Your task to perform on an android device: turn on the 12-hour format for clock Image 0: 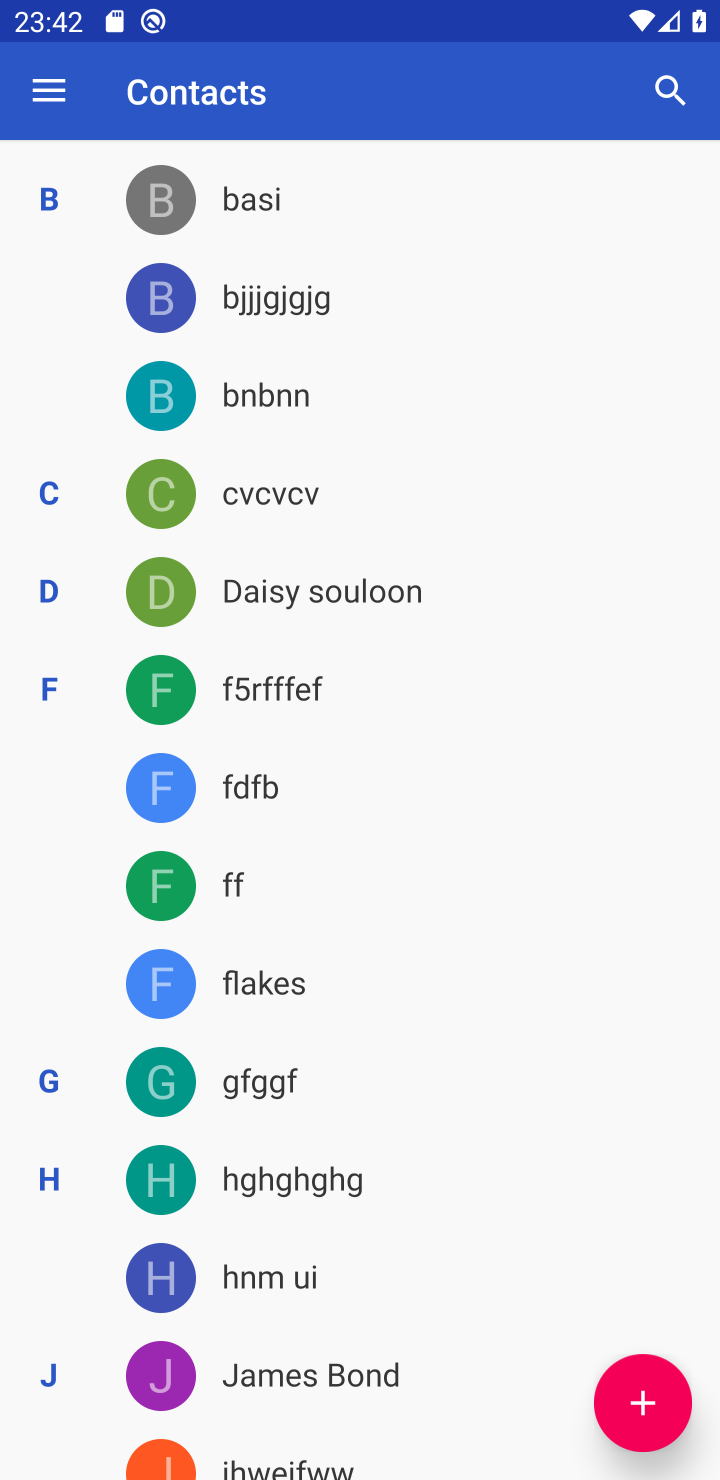
Step 0: press home button
Your task to perform on an android device: turn on the 12-hour format for clock Image 1: 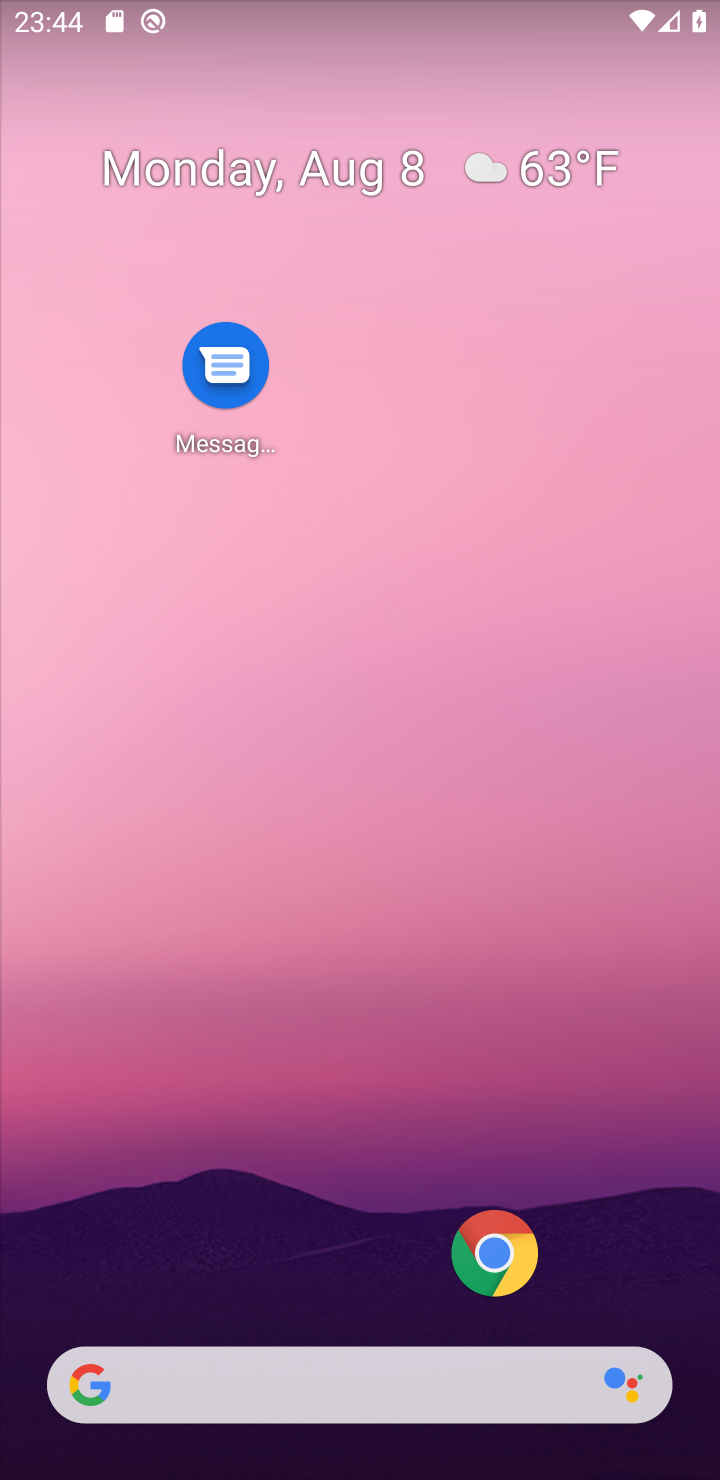
Step 1: drag from (459, 1223) to (487, 165)
Your task to perform on an android device: turn on the 12-hour format for clock Image 2: 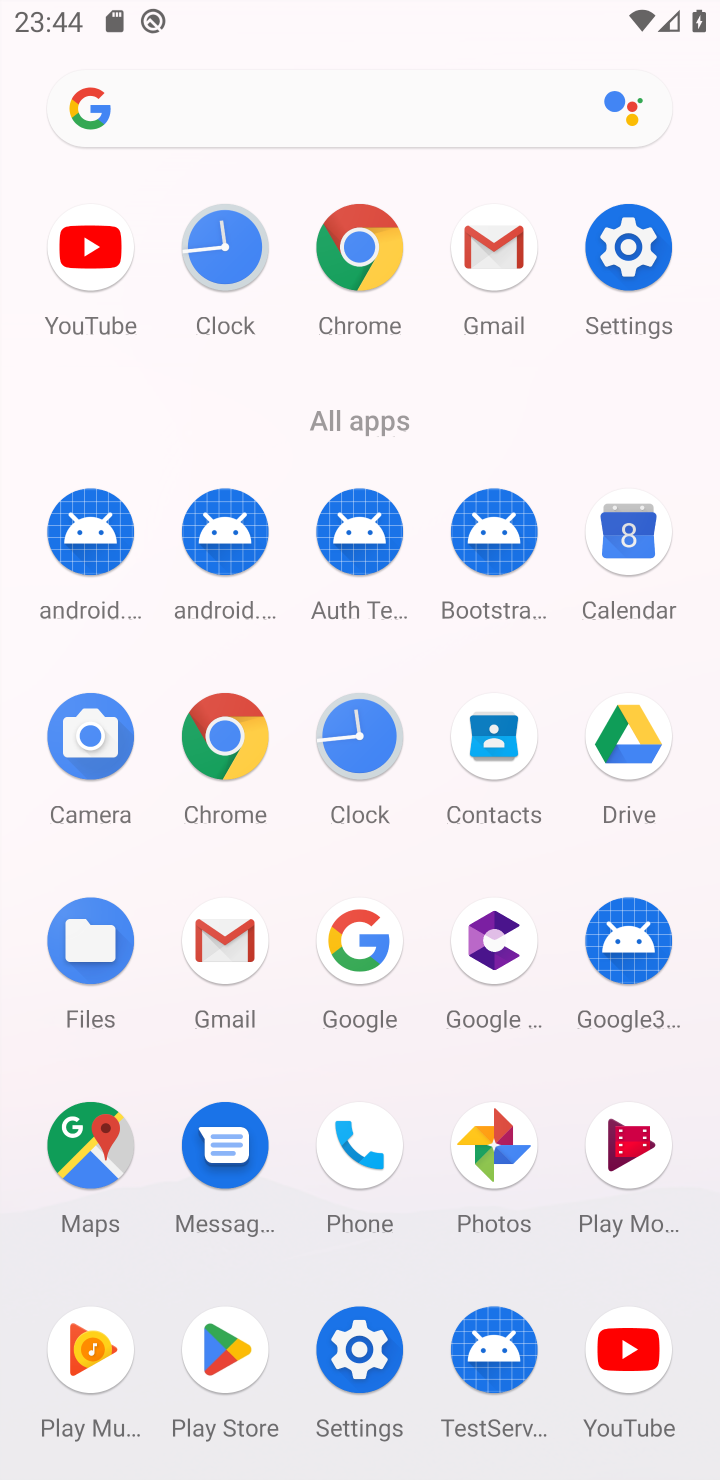
Step 2: click (616, 236)
Your task to perform on an android device: turn on the 12-hour format for clock Image 3: 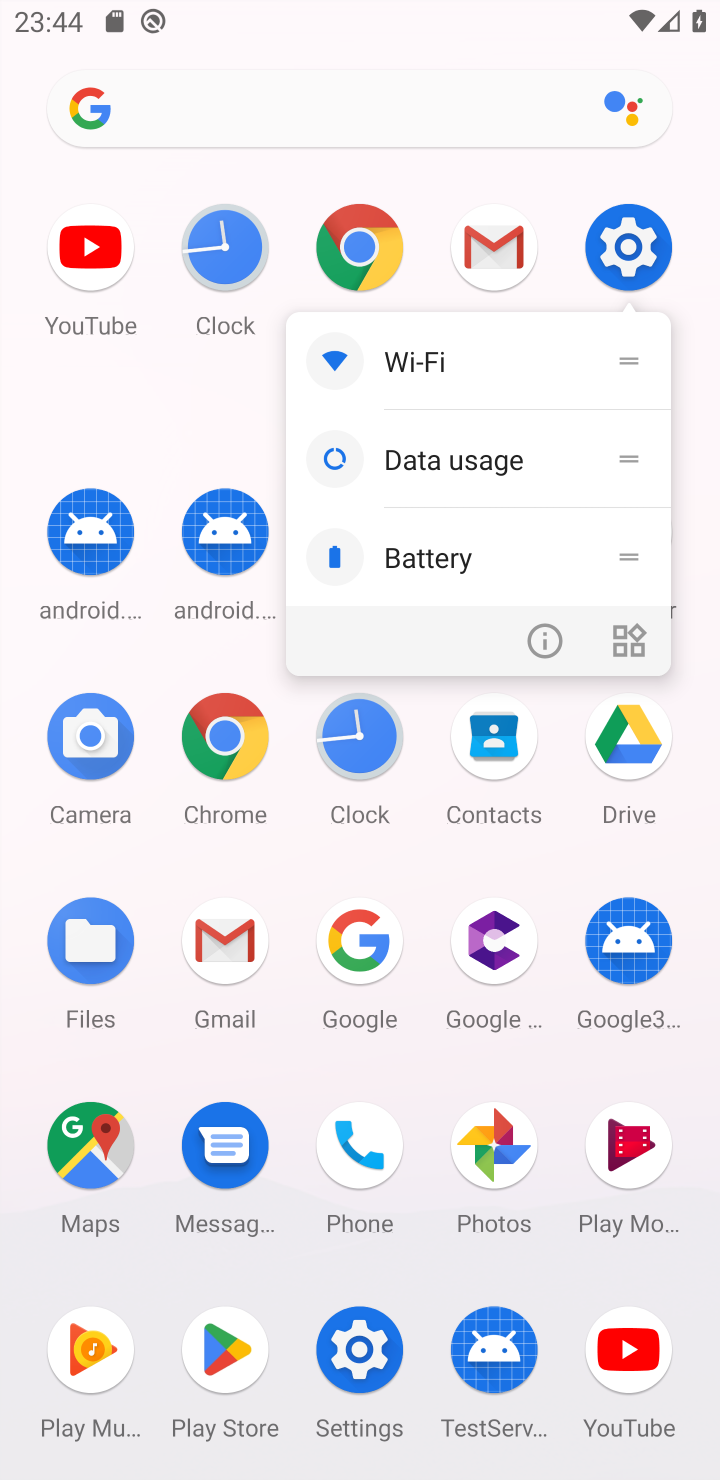
Step 3: click (616, 236)
Your task to perform on an android device: turn on the 12-hour format for clock Image 4: 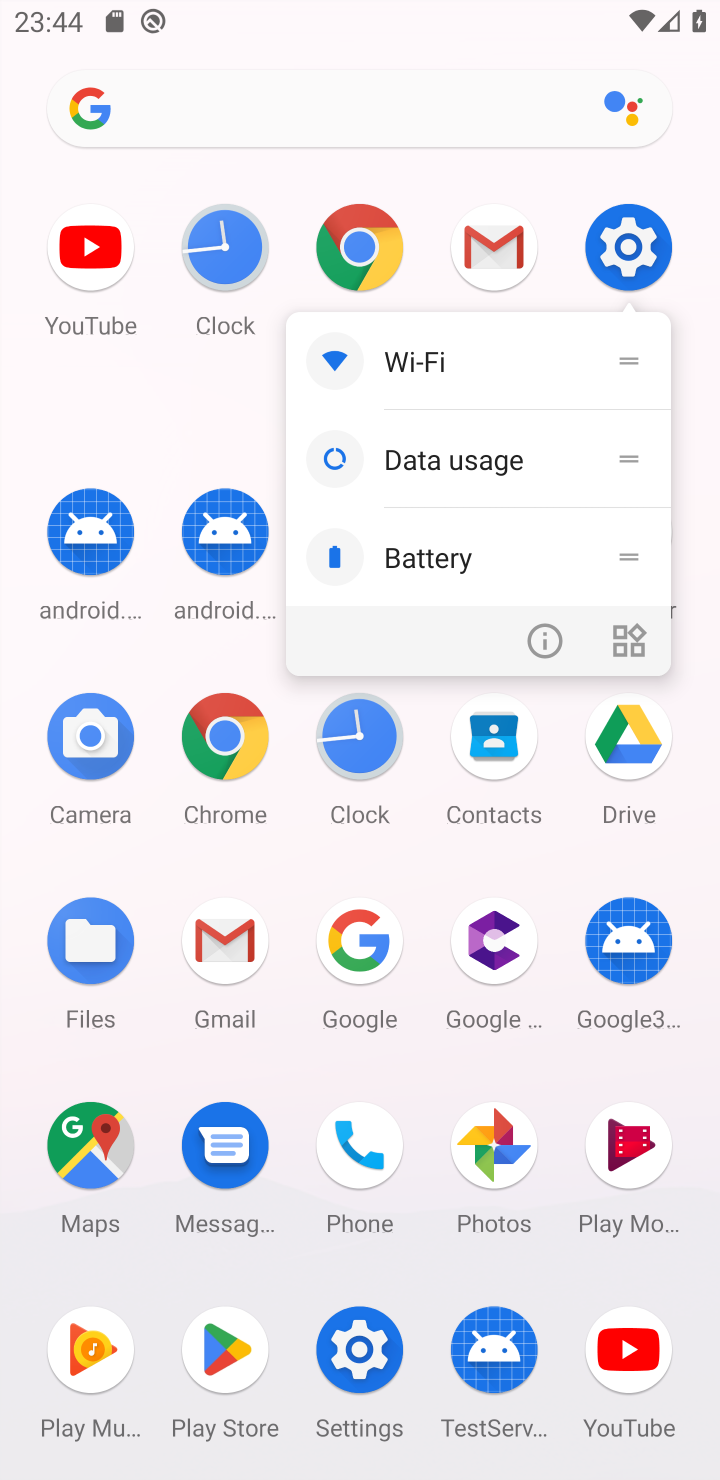
Step 4: click (616, 236)
Your task to perform on an android device: turn on the 12-hour format for clock Image 5: 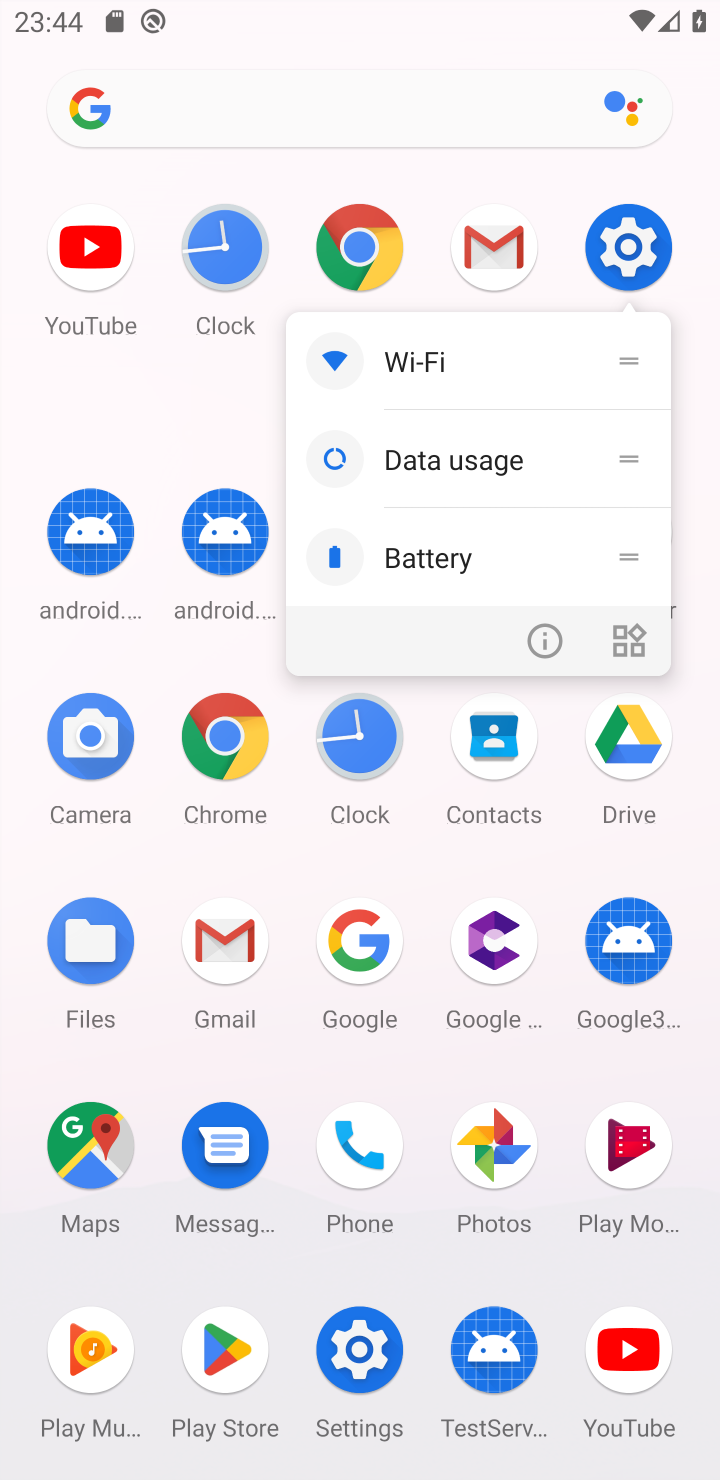
Step 5: click (599, 235)
Your task to perform on an android device: turn on the 12-hour format for clock Image 6: 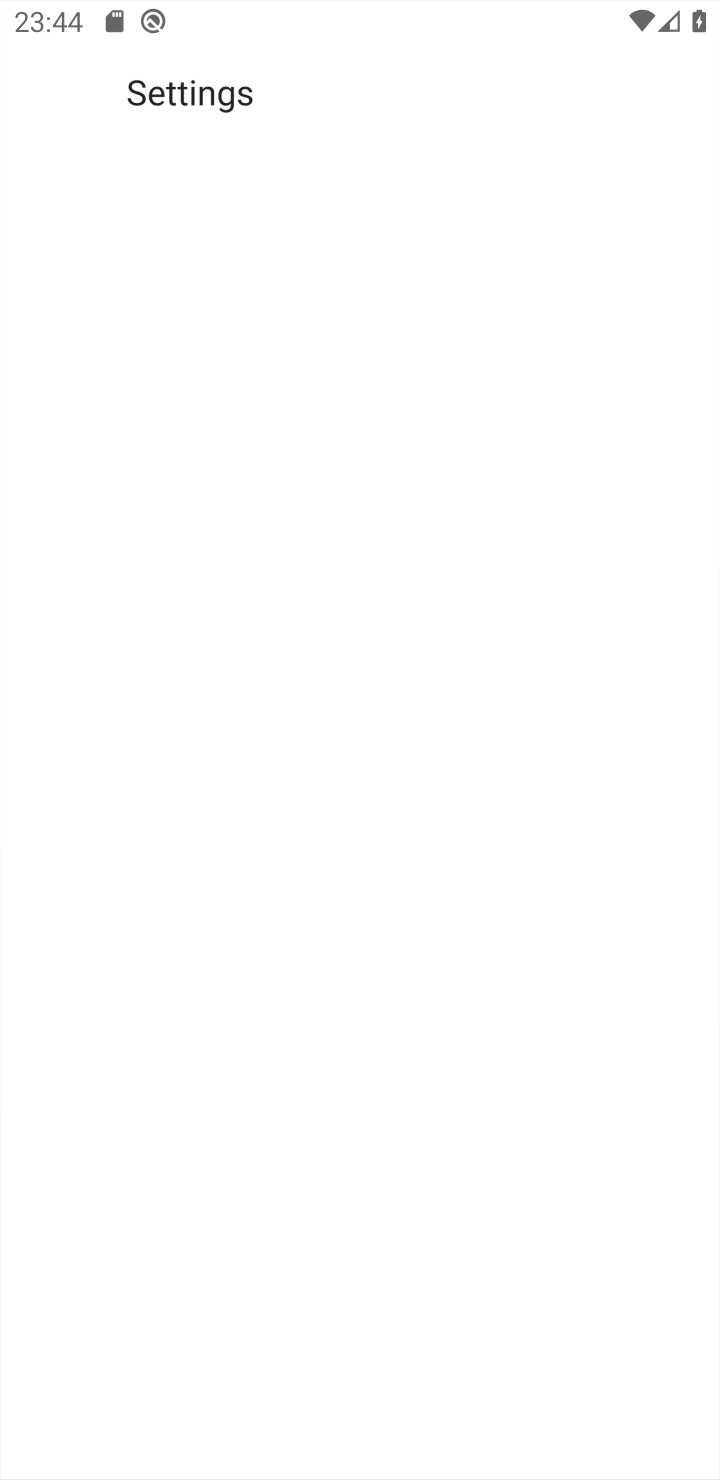
Step 6: click (382, 734)
Your task to perform on an android device: turn on the 12-hour format for clock Image 7: 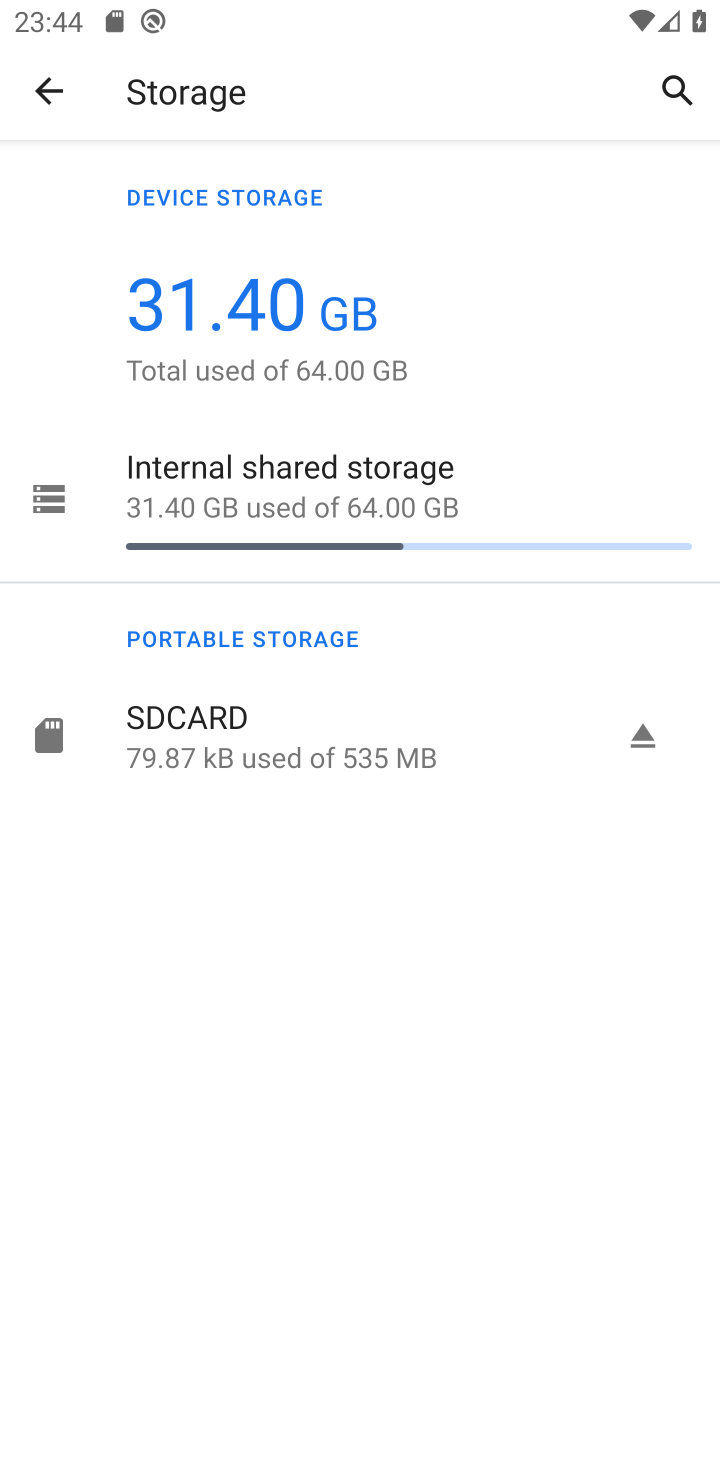
Step 7: press home button
Your task to perform on an android device: turn on the 12-hour format for clock Image 8: 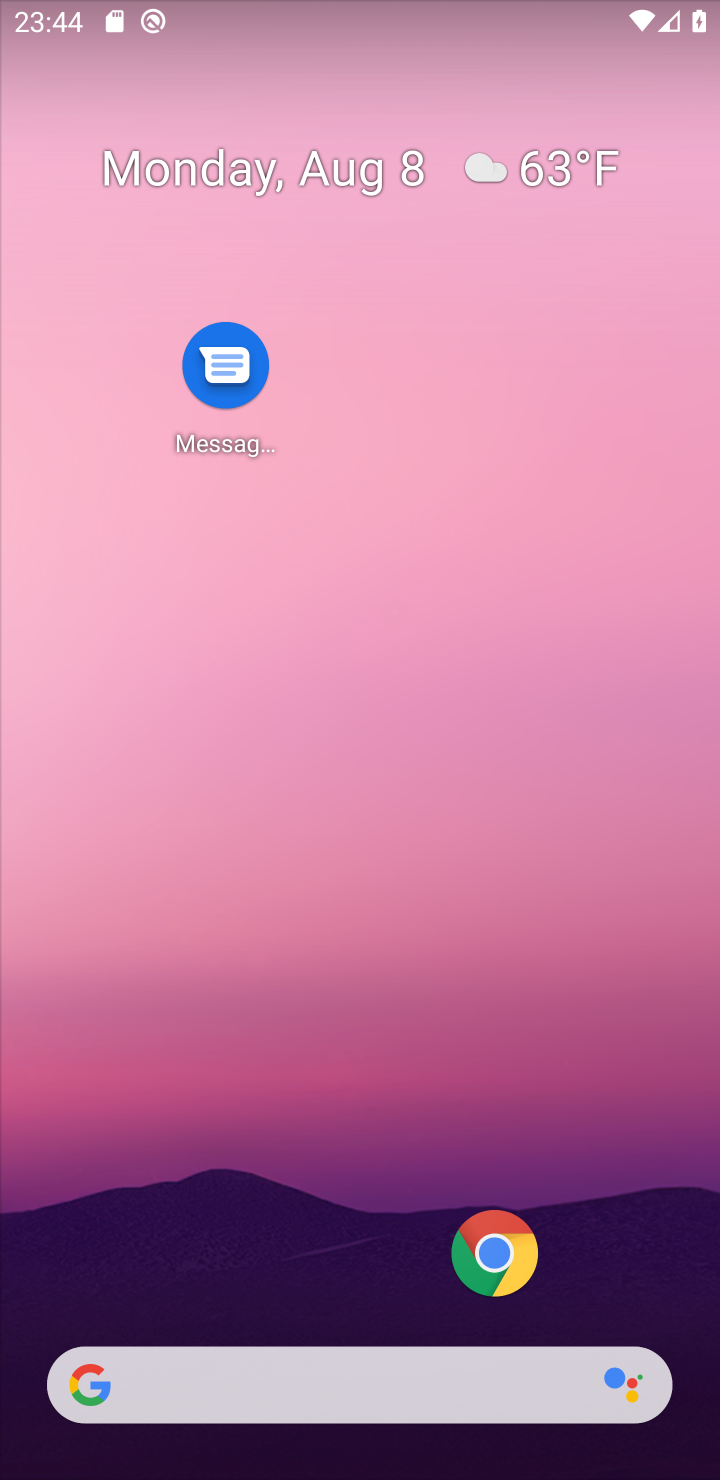
Step 8: drag from (300, 910) to (456, 62)
Your task to perform on an android device: turn on the 12-hour format for clock Image 9: 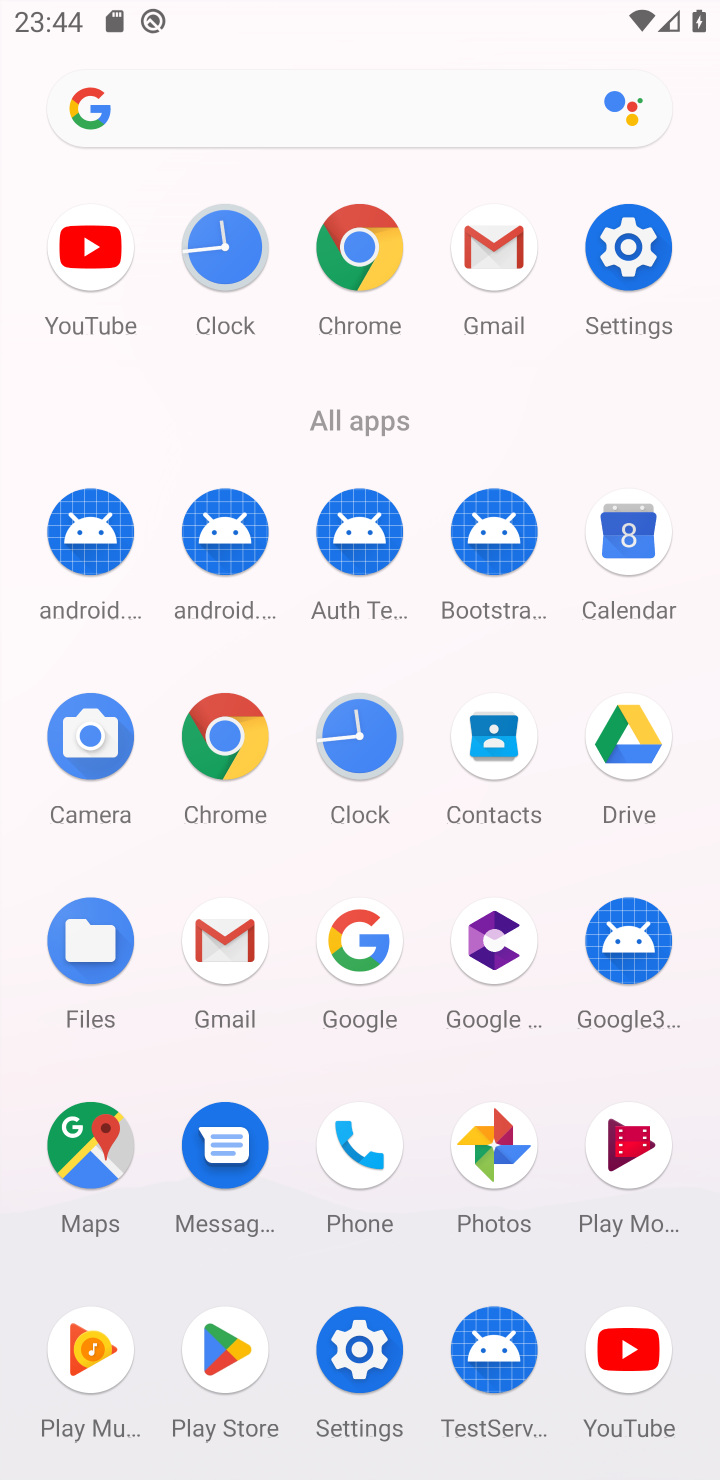
Step 9: click (370, 736)
Your task to perform on an android device: turn on the 12-hour format for clock Image 10: 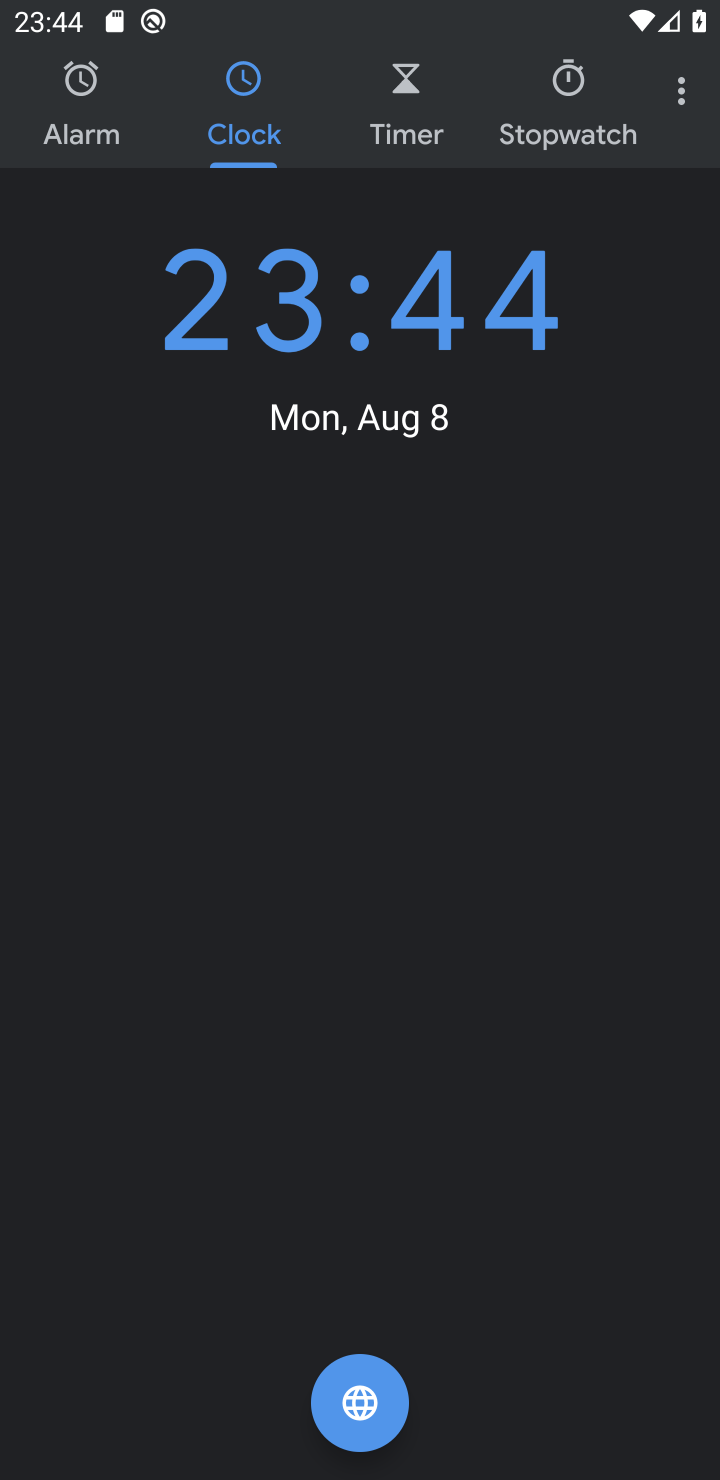
Step 10: click (679, 102)
Your task to perform on an android device: turn on the 12-hour format for clock Image 11: 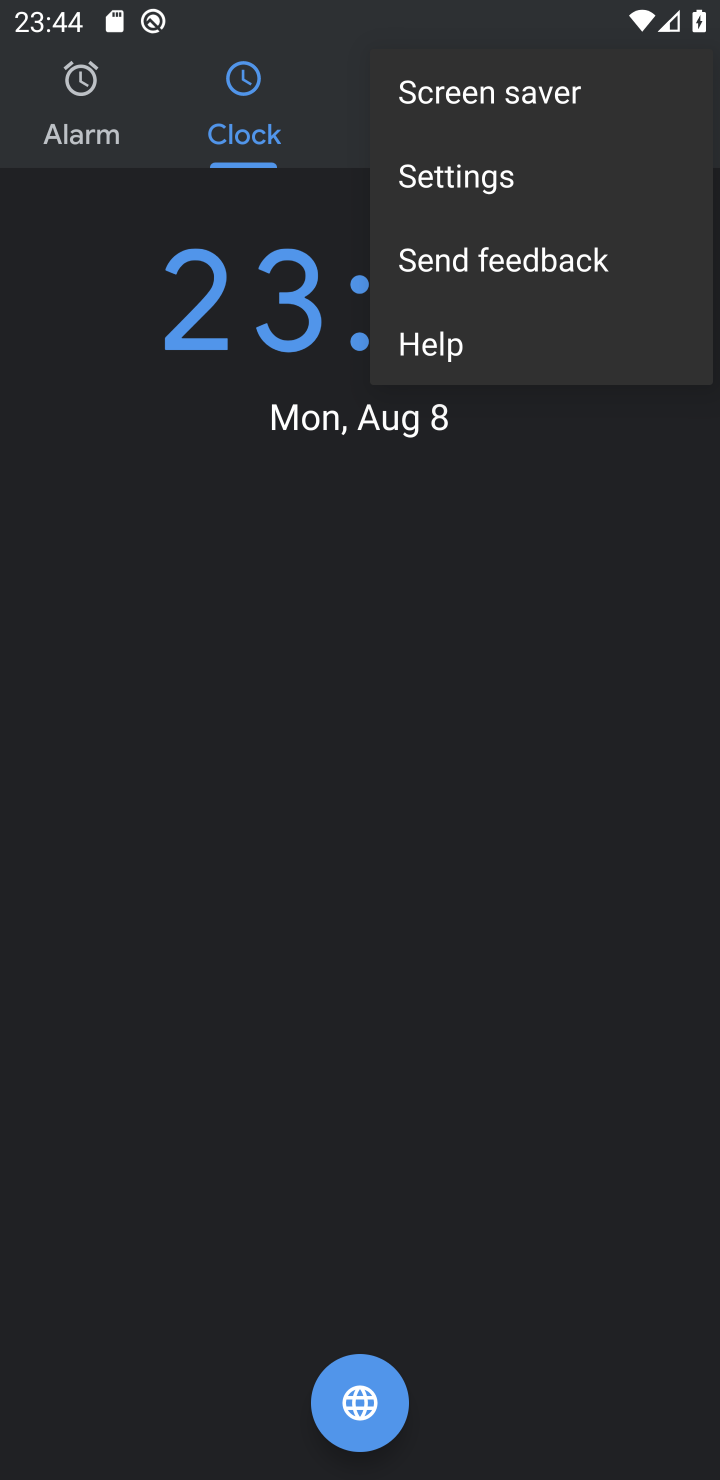
Step 11: click (499, 172)
Your task to perform on an android device: turn on the 12-hour format for clock Image 12: 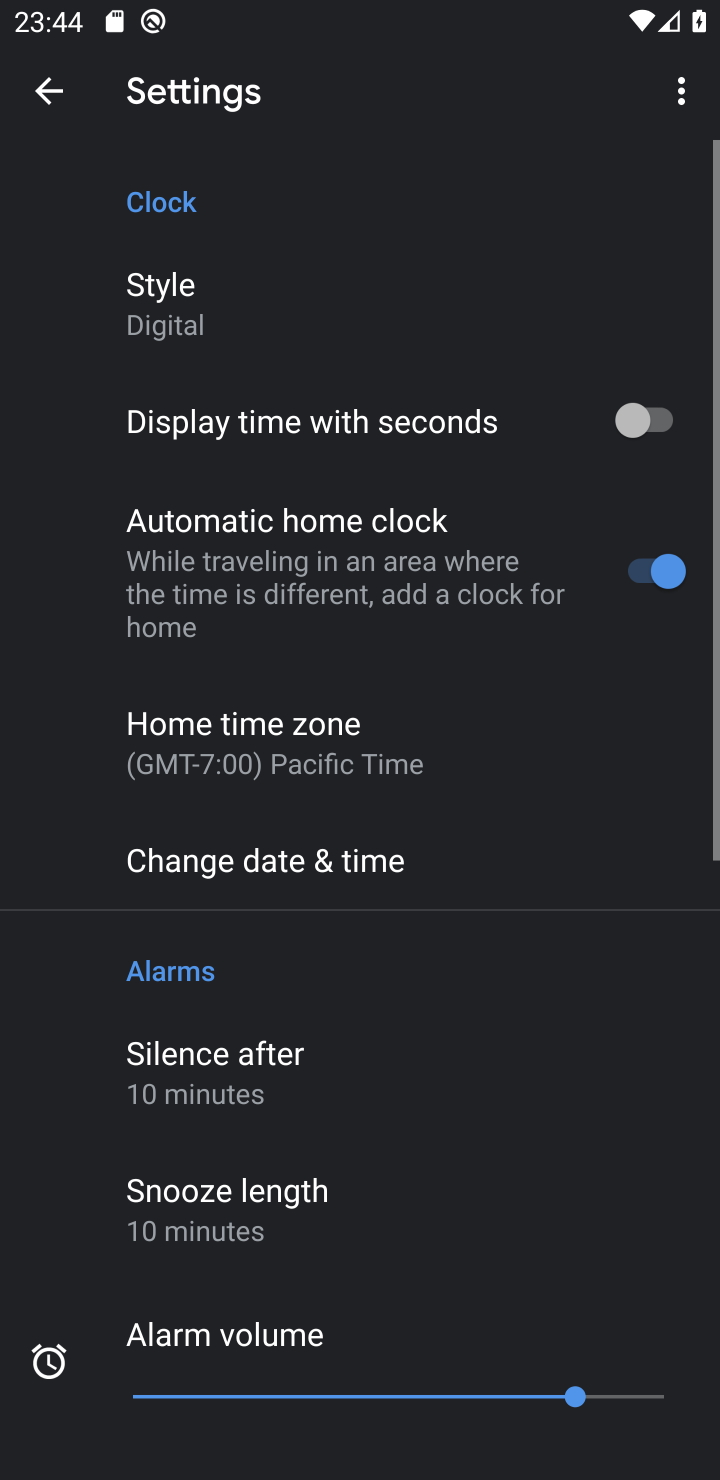
Step 12: click (240, 858)
Your task to perform on an android device: turn on the 12-hour format for clock Image 13: 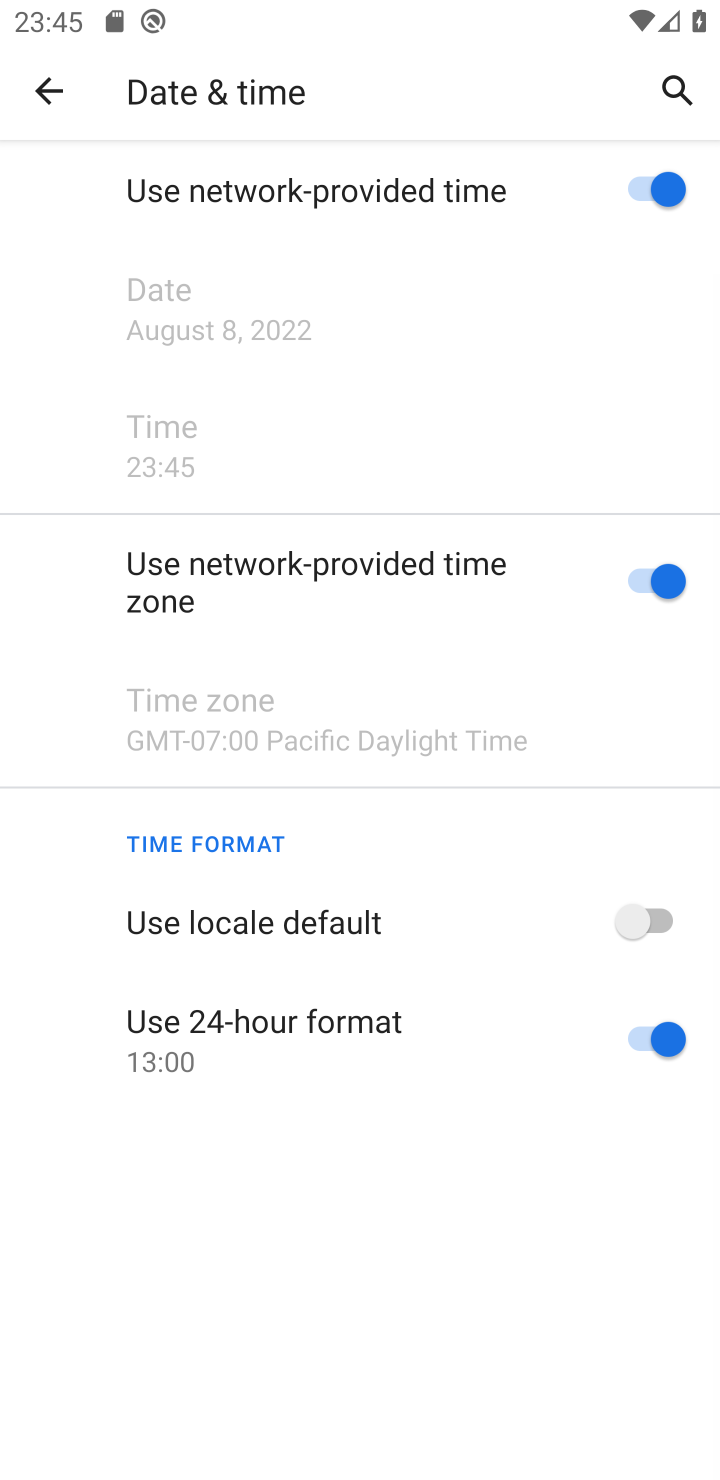
Step 13: task complete